Your task to perform on an android device: Go to location settings Image 0: 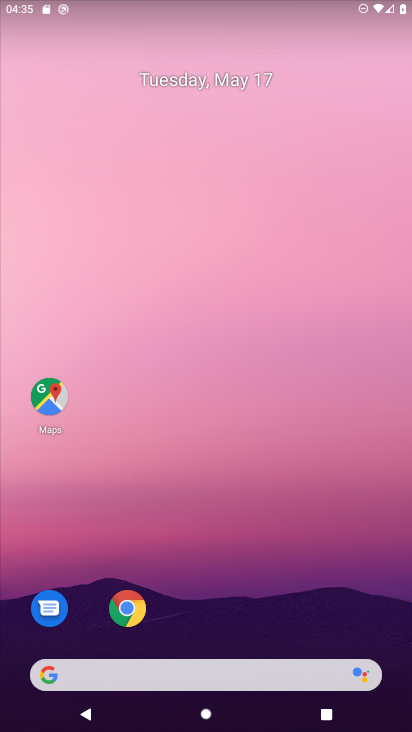
Step 0: drag from (176, 659) to (224, 211)
Your task to perform on an android device: Go to location settings Image 1: 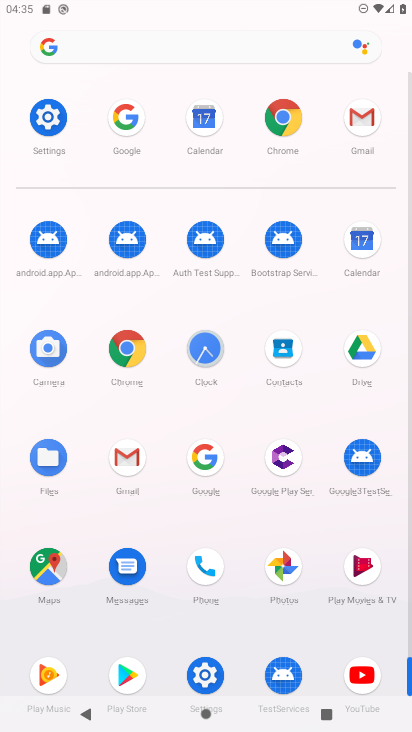
Step 1: click (33, 119)
Your task to perform on an android device: Go to location settings Image 2: 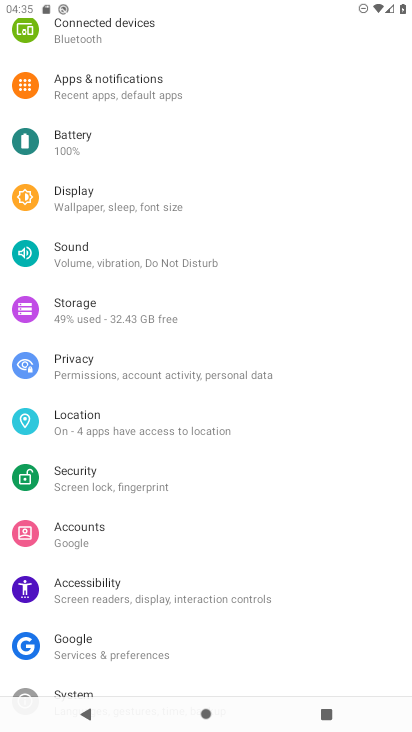
Step 2: click (104, 422)
Your task to perform on an android device: Go to location settings Image 3: 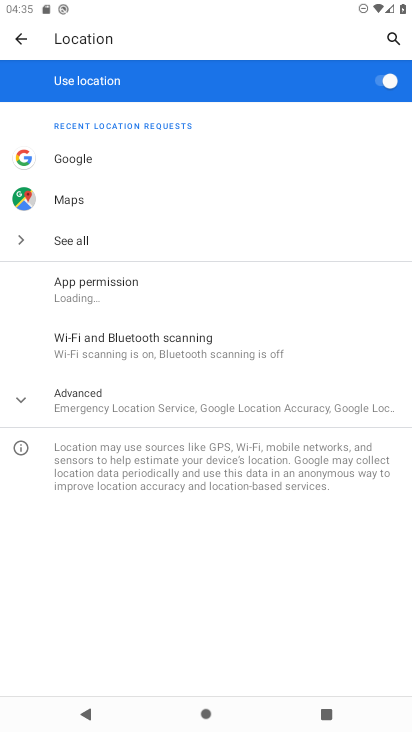
Step 3: click (39, 401)
Your task to perform on an android device: Go to location settings Image 4: 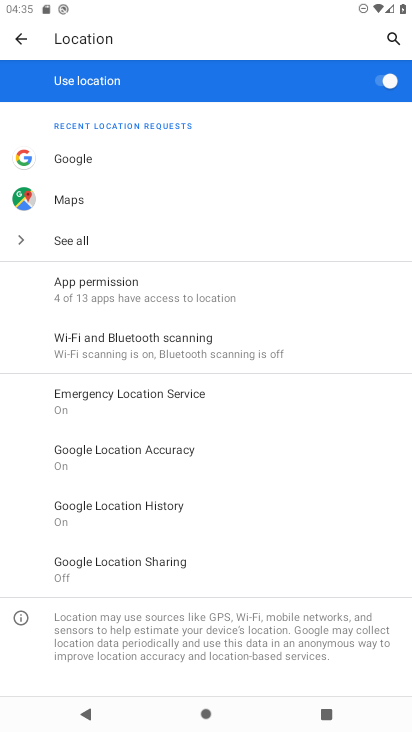
Step 4: task complete